Your task to perform on an android device: Go to calendar. Show me events next week Image 0: 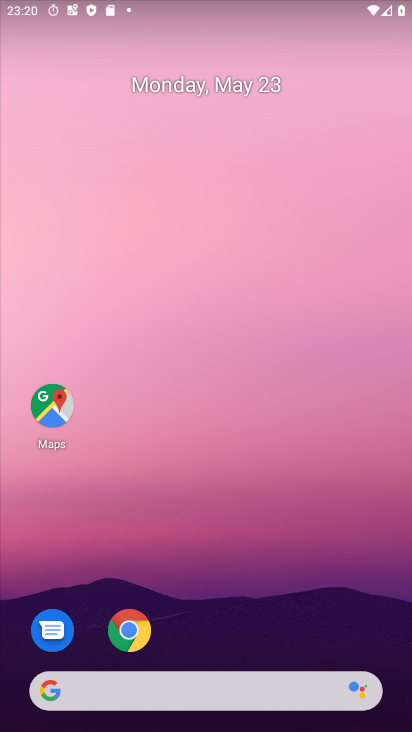
Step 0: drag from (315, 658) to (298, 12)
Your task to perform on an android device: Go to calendar. Show me events next week Image 1: 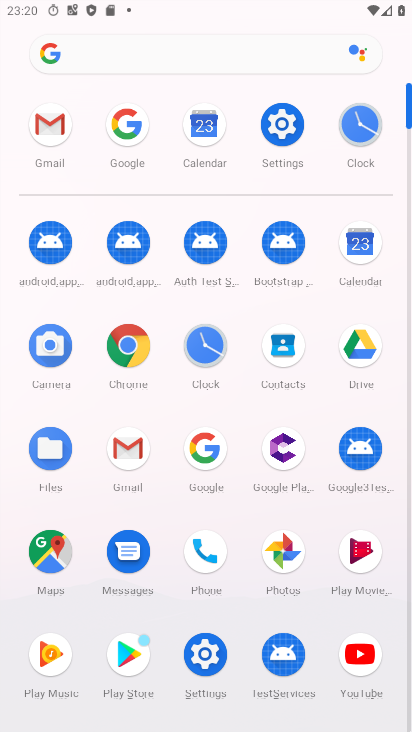
Step 1: click (362, 240)
Your task to perform on an android device: Go to calendar. Show me events next week Image 2: 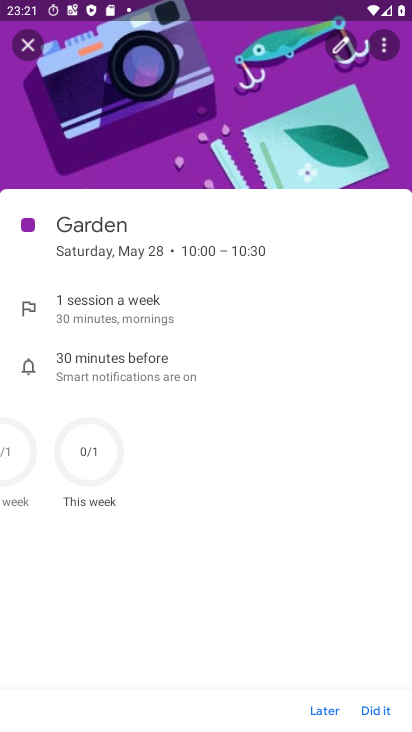
Step 2: click (38, 41)
Your task to perform on an android device: Go to calendar. Show me events next week Image 3: 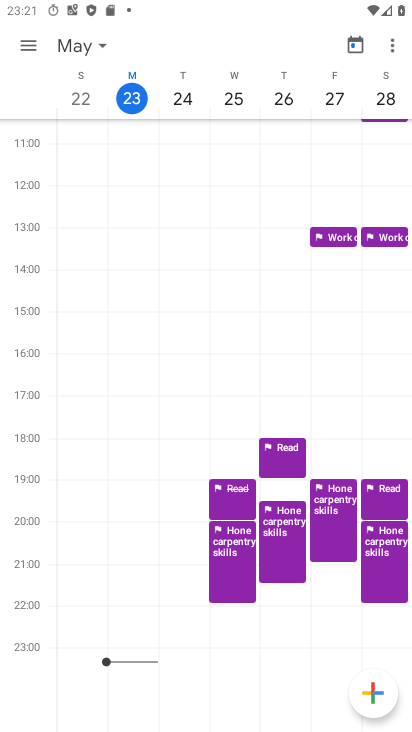
Step 3: task complete